Your task to perform on an android device: Open calendar and show me the first week of next month Image 0: 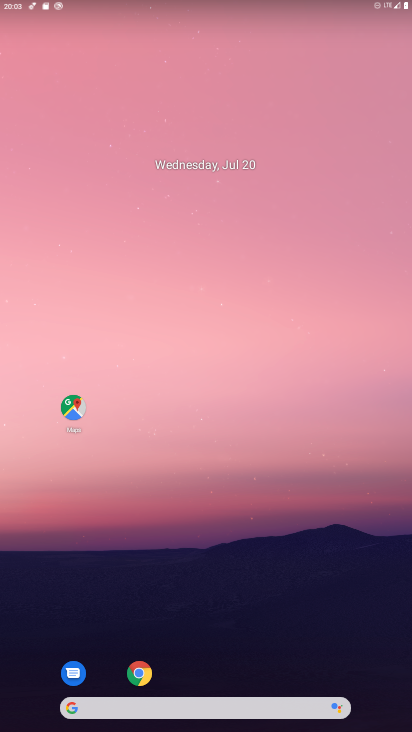
Step 0: drag from (264, 466) to (258, 147)
Your task to perform on an android device: Open calendar and show me the first week of next month Image 1: 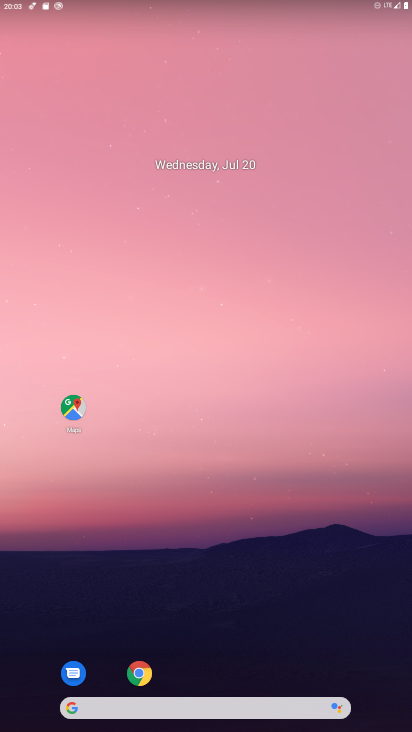
Step 1: drag from (322, 647) to (366, 91)
Your task to perform on an android device: Open calendar and show me the first week of next month Image 2: 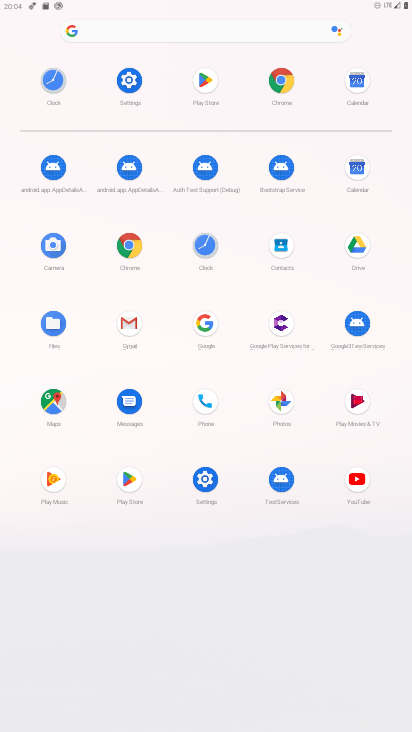
Step 2: click (352, 166)
Your task to perform on an android device: Open calendar and show me the first week of next month Image 3: 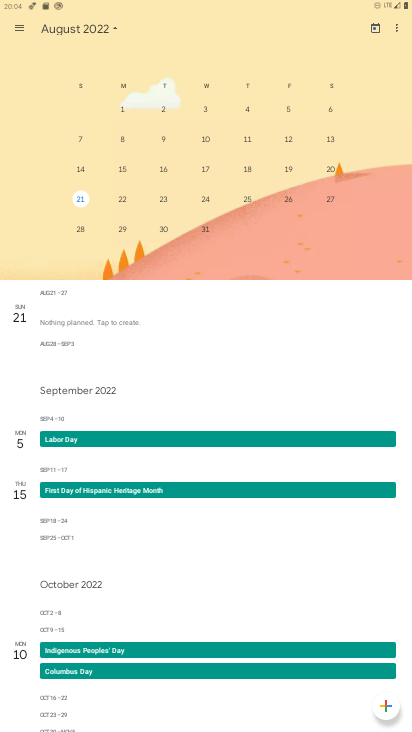
Step 3: drag from (194, 184) to (275, 1)
Your task to perform on an android device: Open calendar and show me the first week of next month Image 4: 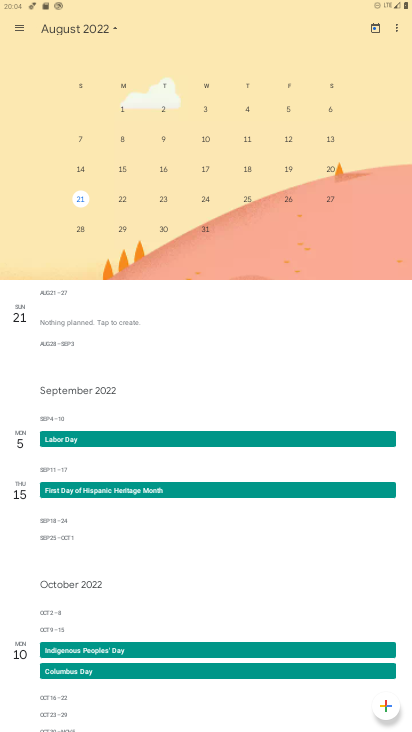
Step 4: click (85, 134)
Your task to perform on an android device: Open calendar and show me the first week of next month Image 5: 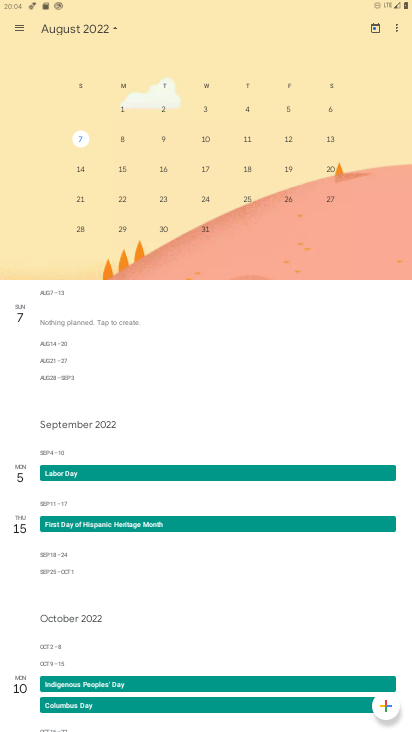
Step 5: task complete